Your task to perform on an android device: uninstall "Clock" Image 0: 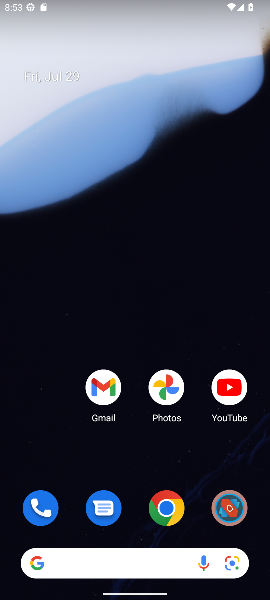
Step 0: drag from (101, 462) to (90, 136)
Your task to perform on an android device: uninstall "Clock" Image 1: 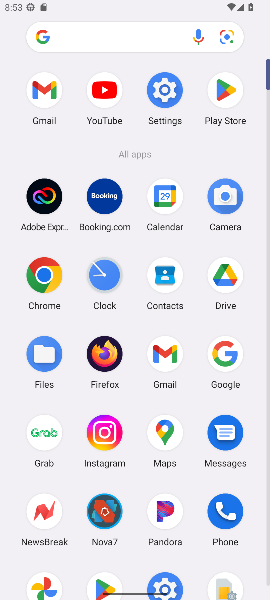
Step 1: click (226, 89)
Your task to perform on an android device: uninstall "Clock" Image 2: 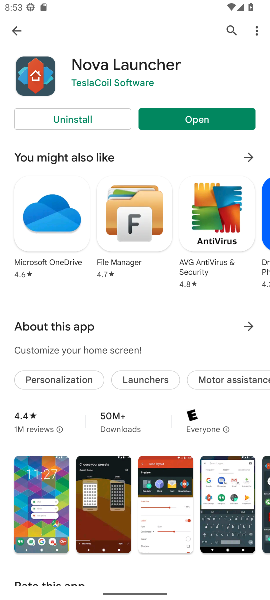
Step 2: click (229, 28)
Your task to perform on an android device: uninstall "Clock" Image 3: 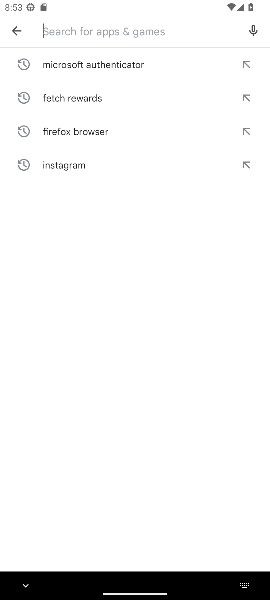
Step 3: type "Clock"
Your task to perform on an android device: uninstall "Clock" Image 4: 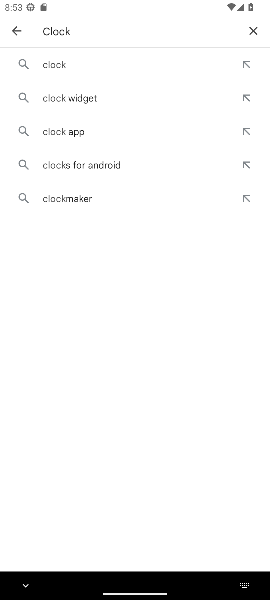
Step 4: click (175, 66)
Your task to perform on an android device: uninstall "Clock" Image 5: 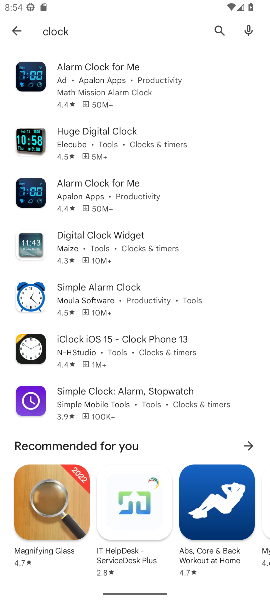
Step 5: task complete